Your task to perform on an android device: turn on data saver in the chrome app Image 0: 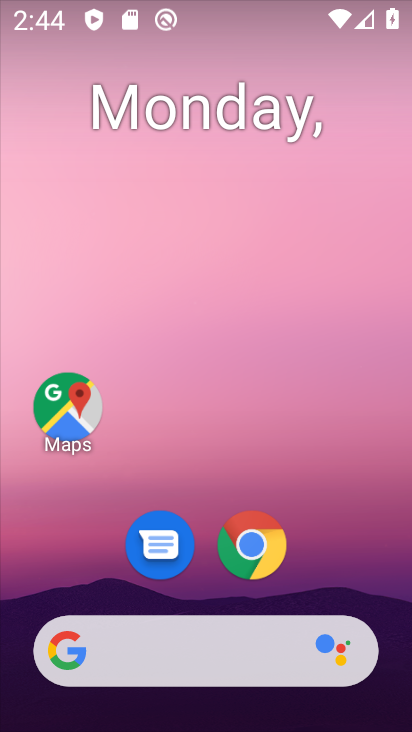
Step 0: click (250, 537)
Your task to perform on an android device: turn on data saver in the chrome app Image 1: 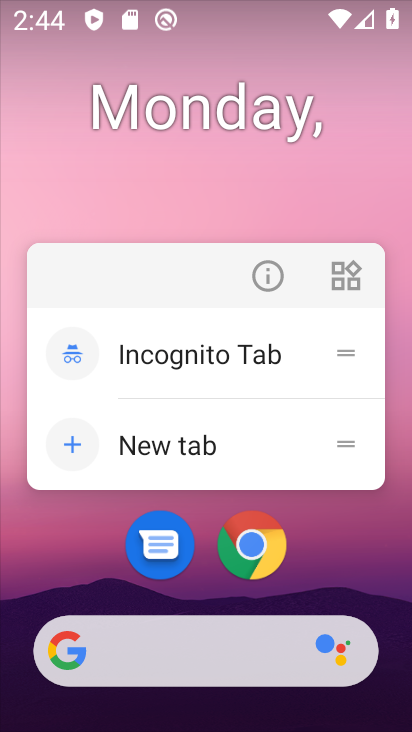
Step 1: click (250, 537)
Your task to perform on an android device: turn on data saver in the chrome app Image 2: 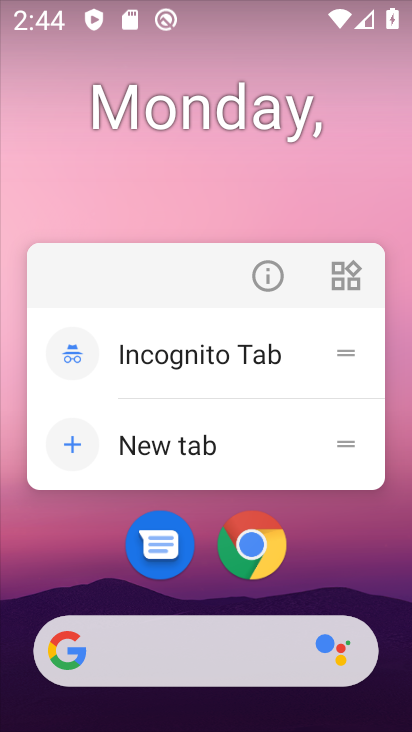
Step 2: click (257, 543)
Your task to perform on an android device: turn on data saver in the chrome app Image 3: 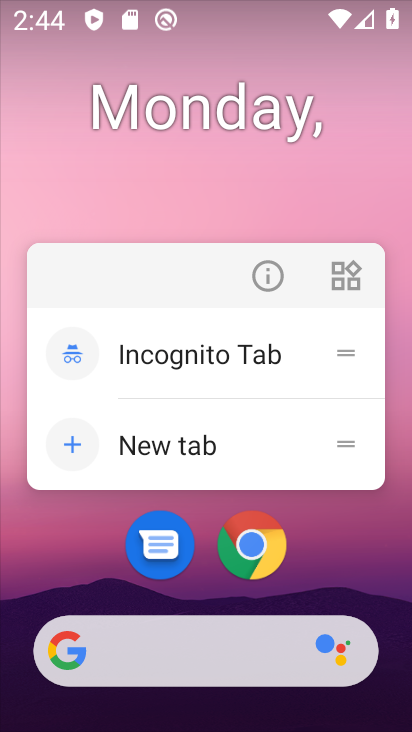
Step 3: click (254, 553)
Your task to perform on an android device: turn on data saver in the chrome app Image 4: 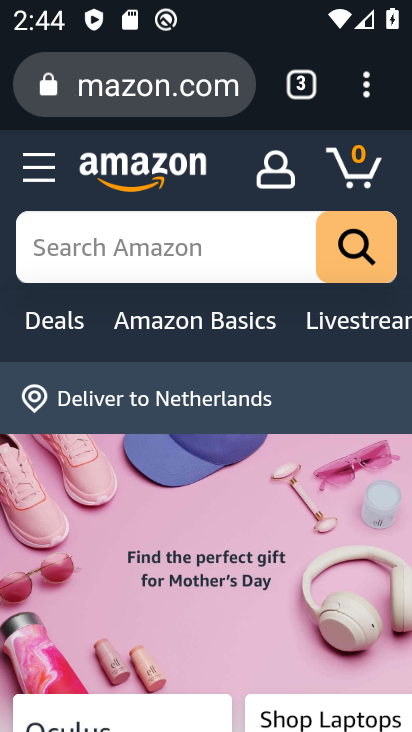
Step 4: drag from (370, 79) to (166, 587)
Your task to perform on an android device: turn on data saver in the chrome app Image 5: 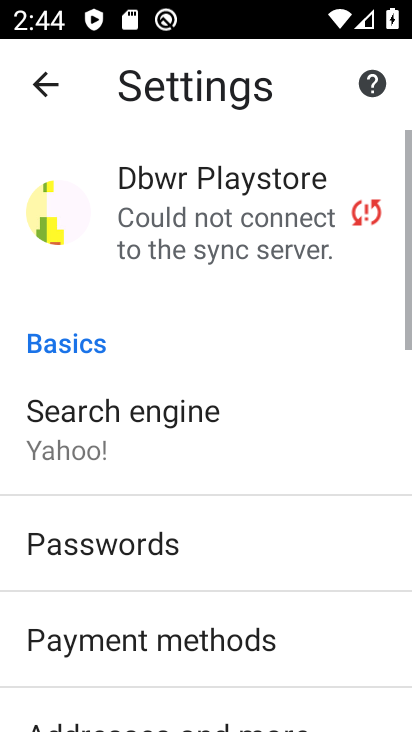
Step 5: drag from (173, 603) to (291, 57)
Your task to perform on an android device: turn on data saver in the chrome app Image 6: 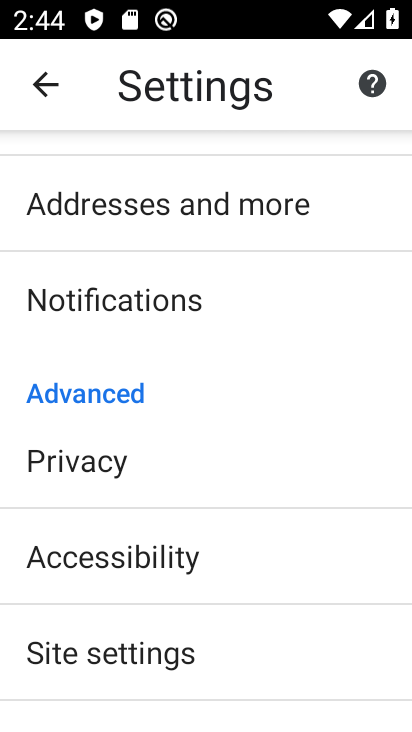
Step 6: drag from (141, 588) to (244, 156)
Your task to perform on an android device: turn on data saver in the chrome app Image 7: 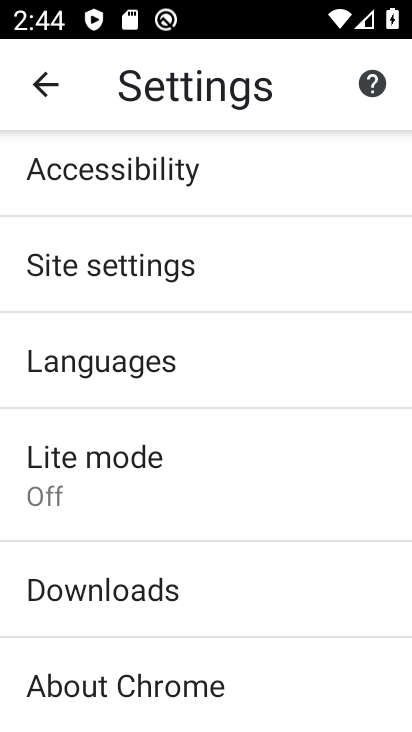
Step 7: click (103, 480)
Your task to perform on an android device: turn on data saver in the chrome app Image 8: 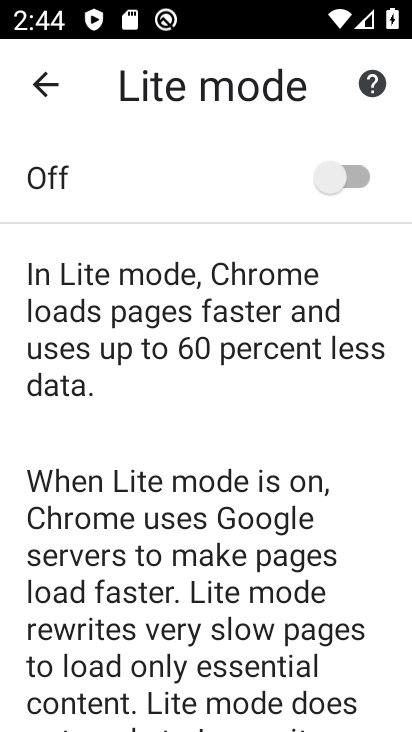
Step 8: click (332, 178)
Your task to perform on an android device: turn on data saver in the chrome app Image 9: 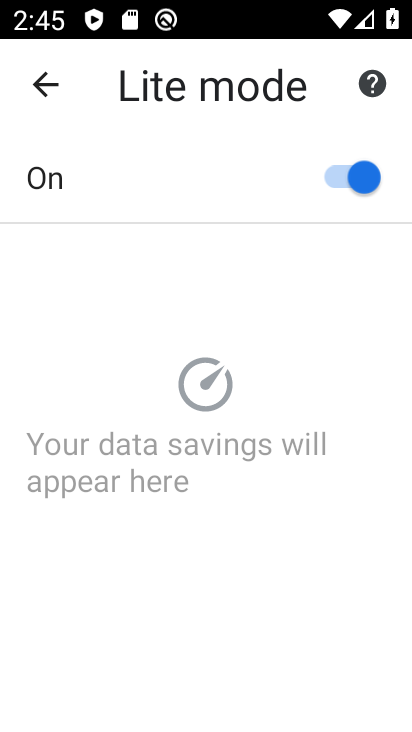
Step 9: task complete